Your task to perform on an android device: Set the phone to "Do not disturb". Image 0: 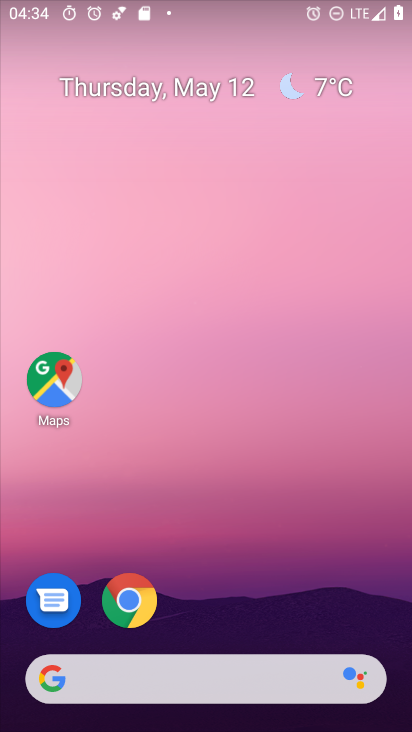
Step 0: drag from (225, 727) to (226, 198)
Your task to perform on an android device: Set the phone to "Do not disturb". Image 1: 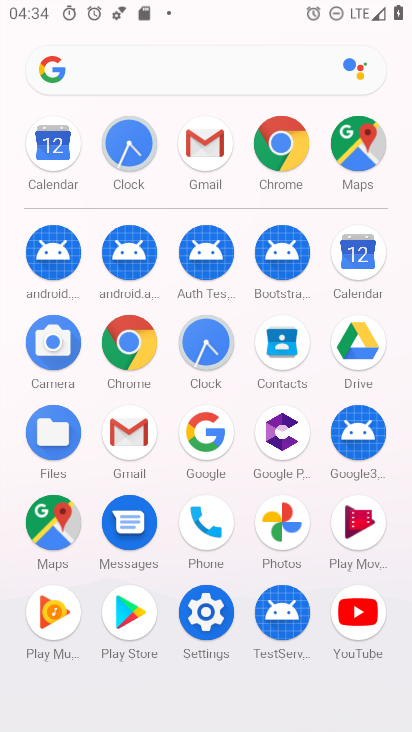
Step 1: click (205, 616)
Your task to perform on an android device: Set the phone to "Do not disturb". Image 2: 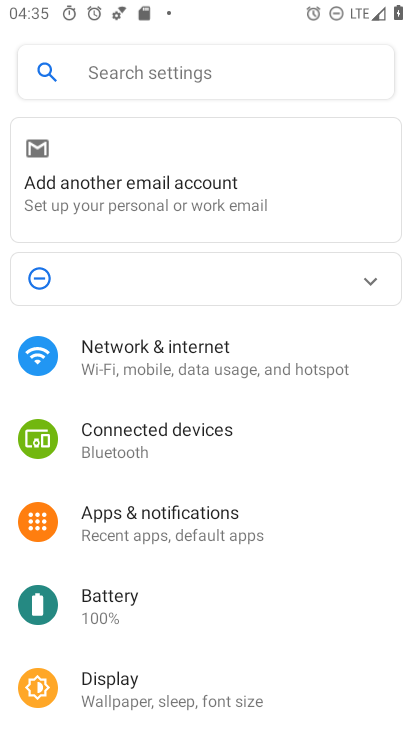
Step 2: drag from (128, 656) to (164, 287)
Your task to perform on an android device: Set the phone to "Do not disturb". Image 3: 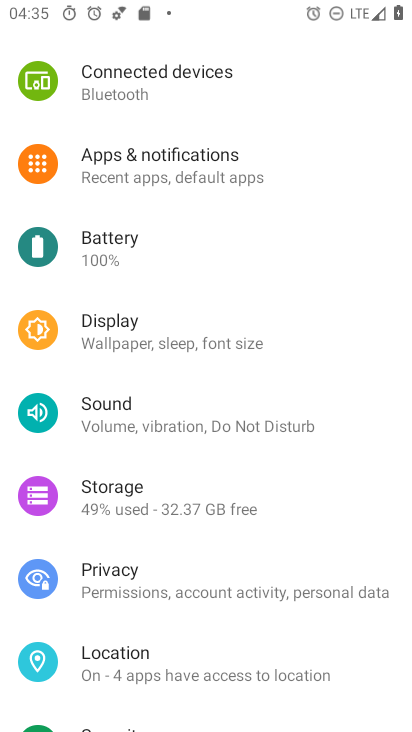
Step 3: click (200, 430)
Your task to perform on an android device: Set the phone to "Do not disturb". Image 4: 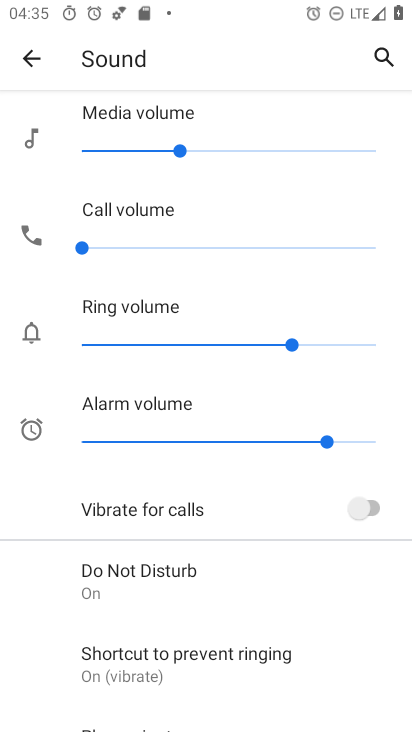
Step 4: click (123, 577)
Your task to perform on an android device: Set the phone to "Do not disturb". Image 5: 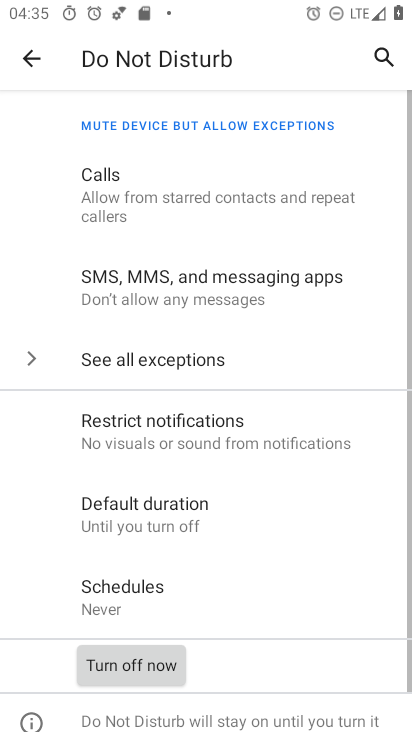
Step 5: task complete